Your task to perform on an android device: add a label to a message in the gmail app Image 0: 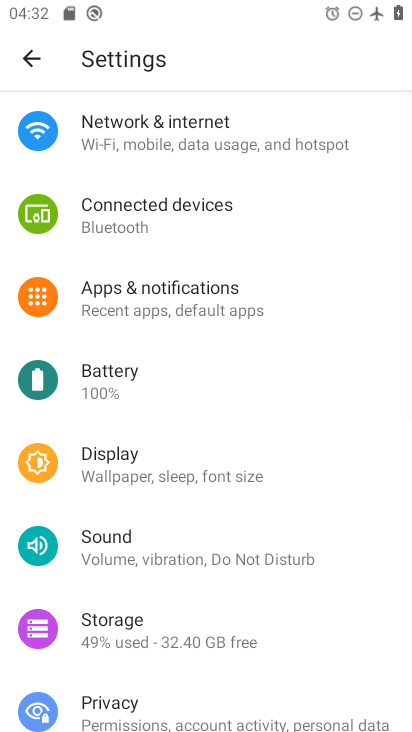
Step 0: press home button
Your task to perform on an android device: add a label to a message in the gmail app Image 1: 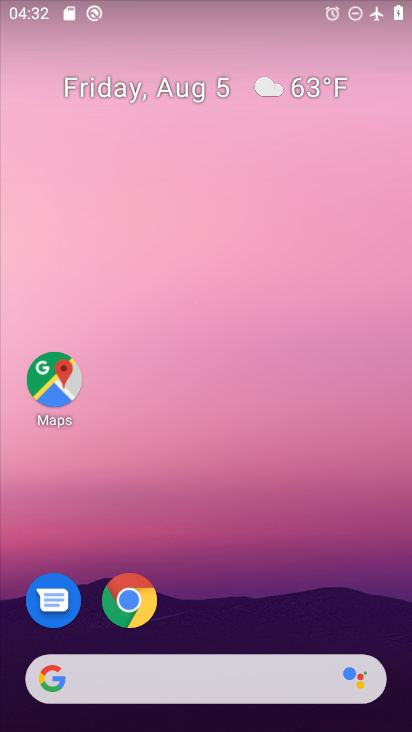
Step 1: drag from (184, 689) to (204, 255)
Your task to perform on an android device: add a label to a message in the gmail app Image 2: 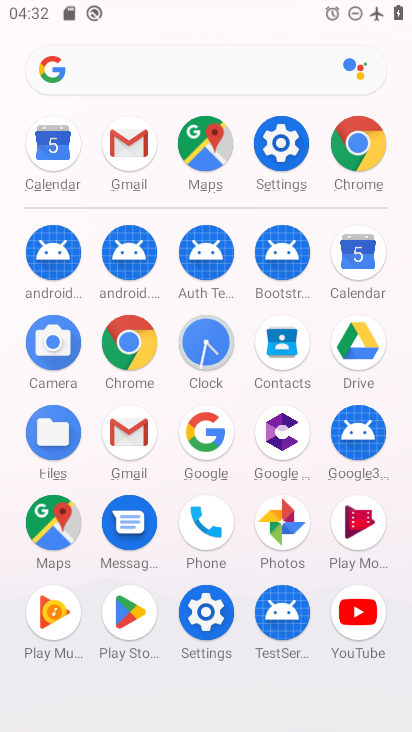
Step 2: click (125, 136)
Your task to perform on an android device: add a label to a message in the gmail app Image 3: 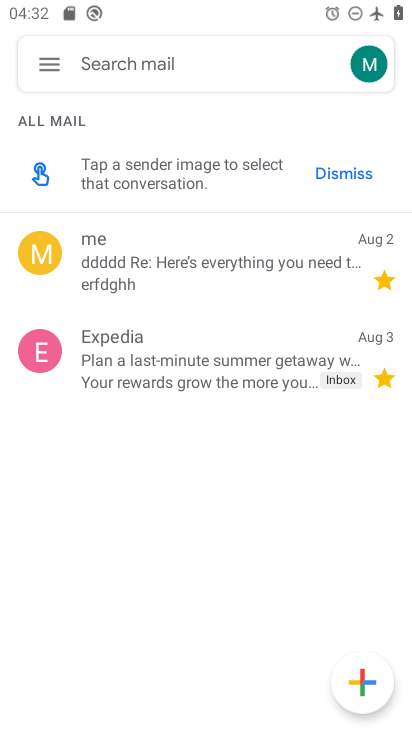
Step 3: click (156, 253)
Your task to perform on an android device: add a label to a message in the gmail app Image 4: 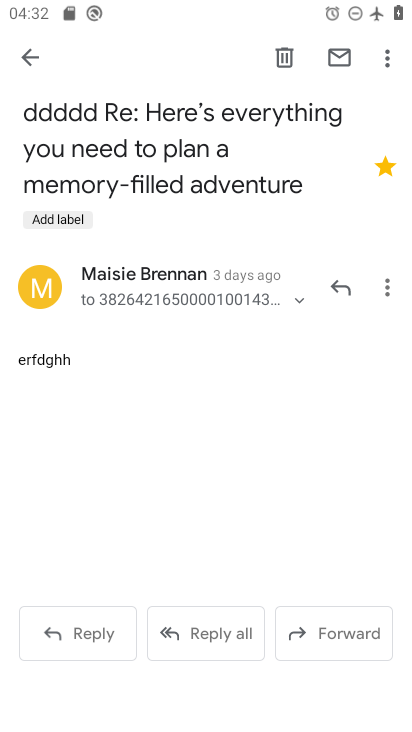
Step 4: task complete